Your task to perform on an android device: add a label to a message in the gmail app Image 0: 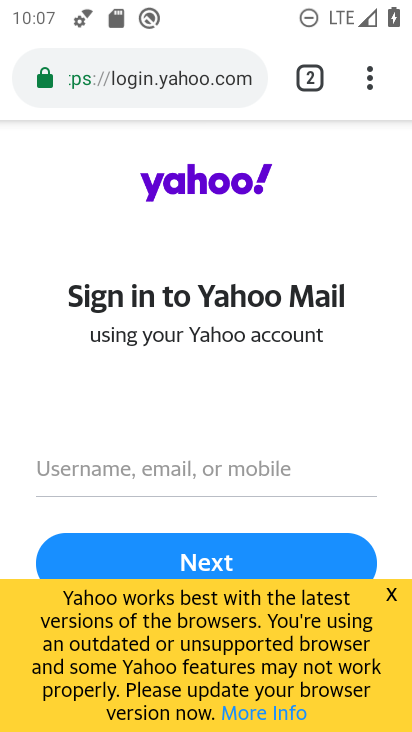
Step 0: press home button
Your task to perform on an android device: add a label to a message in the gmail app Image 1: 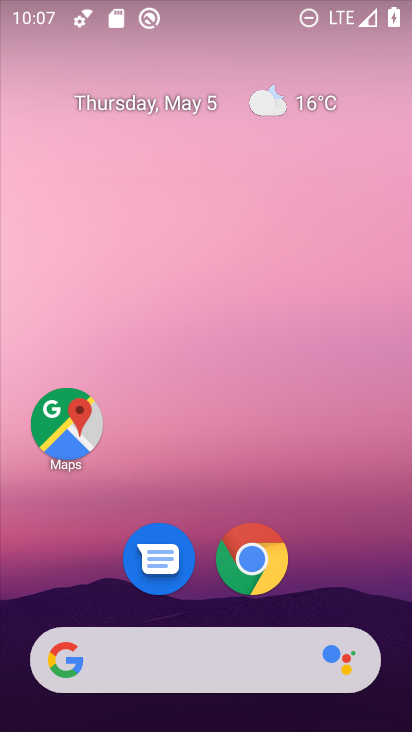
Step 1: drag from (397, 689) to (366, 29)
Your task to perform on an android device: add a label to a message in the gmail app Image 2: 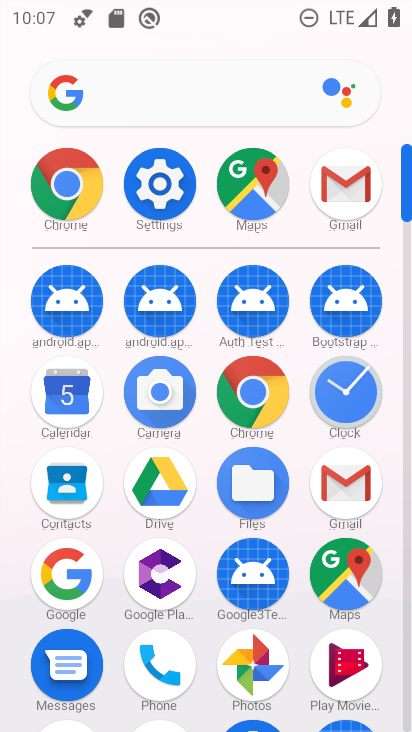
Step 2: click (346, 467)
Your task to perform on an android device: add a label to a message in the gmail app Image 3: 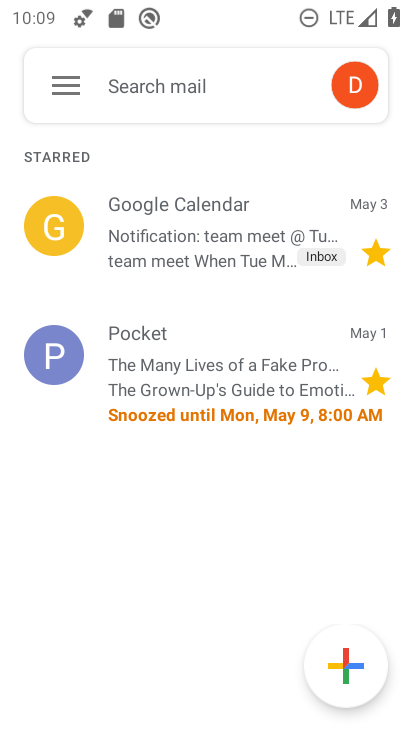
Step 3: task complete